Your task to perform on an android device: change notification settings in the gmail app Image 0: 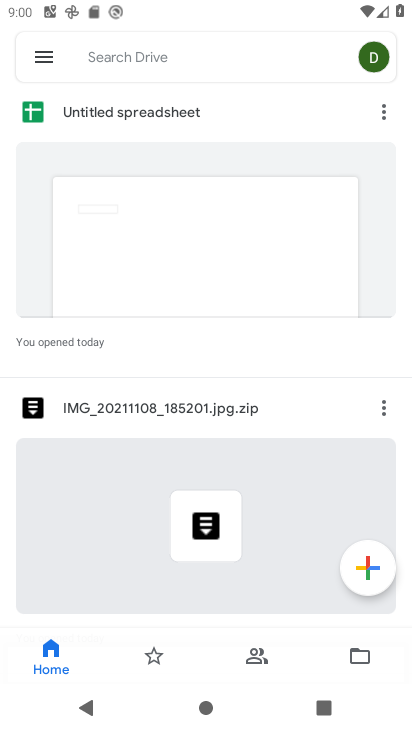
Step 0: press home button
Your task to perform on an android device: change notification settings in the gmail app Image 1: 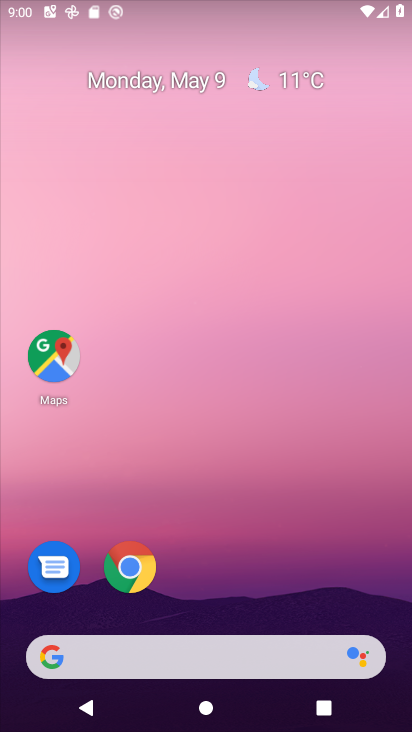
Step 1: drag from (162, 448) to (183, 24)
Your task to perform on an android device: change notification settings in the gmail app Image 2: 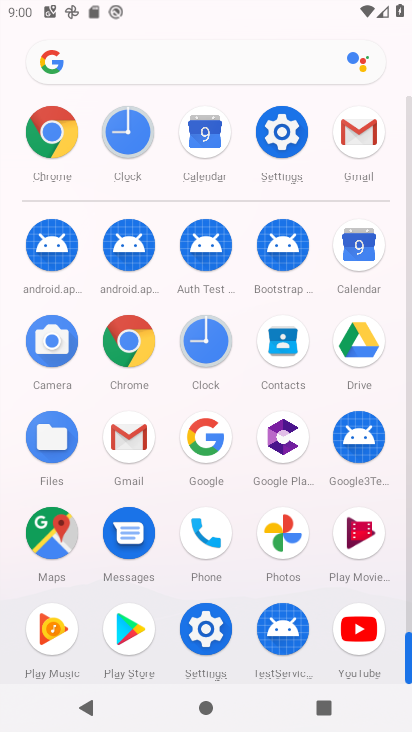
Step 2: click (347, 129)
Your task to perform on an android device: change notification settings in the gmail app Image 3: 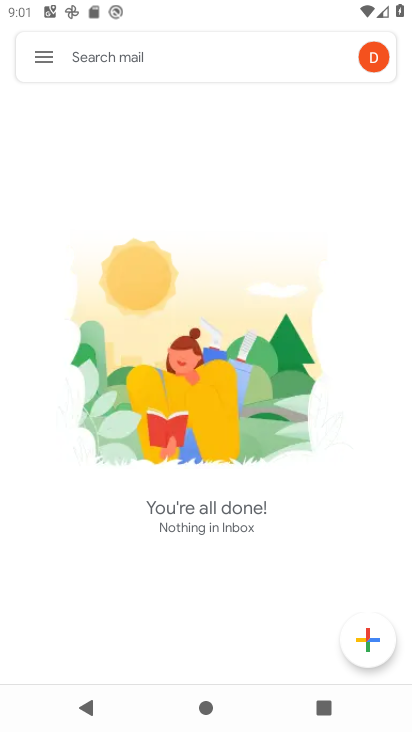
Step 3: click (46, 54)
Your task to perform on an android device: change notification settings in the gmail app Image 4: 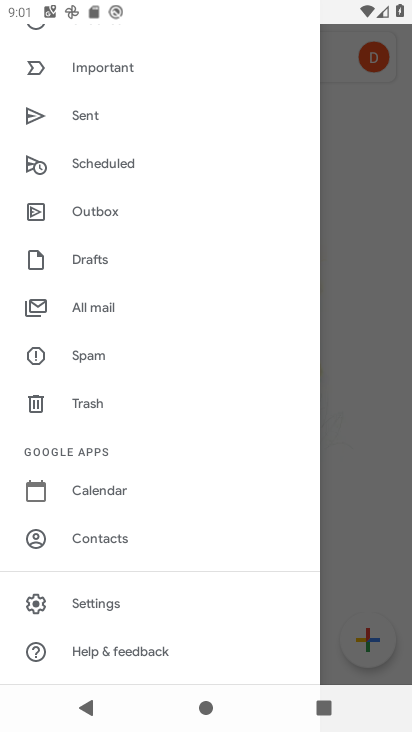
Step 4: click (154, 605)
Your task to perform on an android device: change notification settings in the gmail app Image 5: 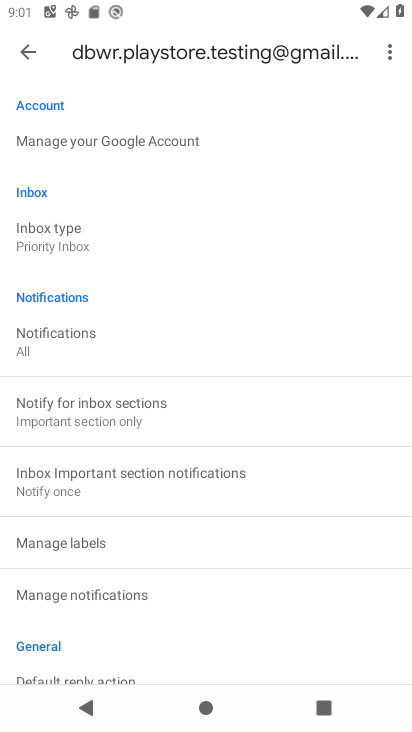
Step 5: click (156, 587)
Your task to perform on an android device: change notification settings in the gmail app Image 6: 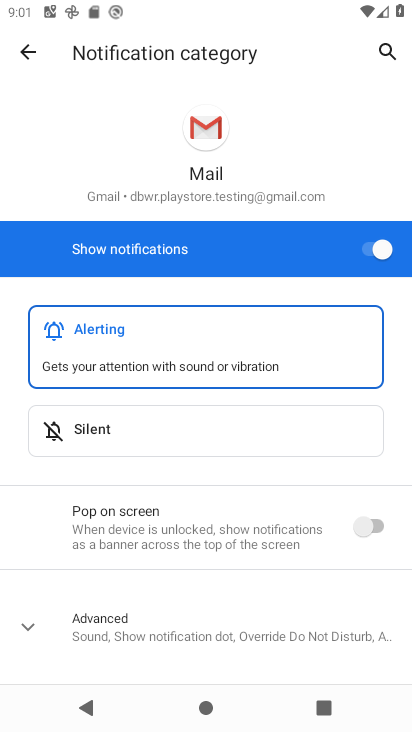
Step 6: click (361, 237)
Your task to perform on an android device: change notification settings in the gmail app Image 7: 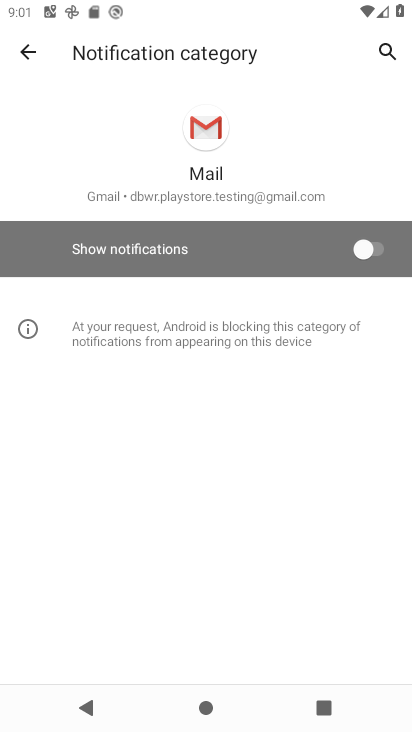
Step 7: task complete